Your task to perform on an android device: all mails in gmail Image 0: 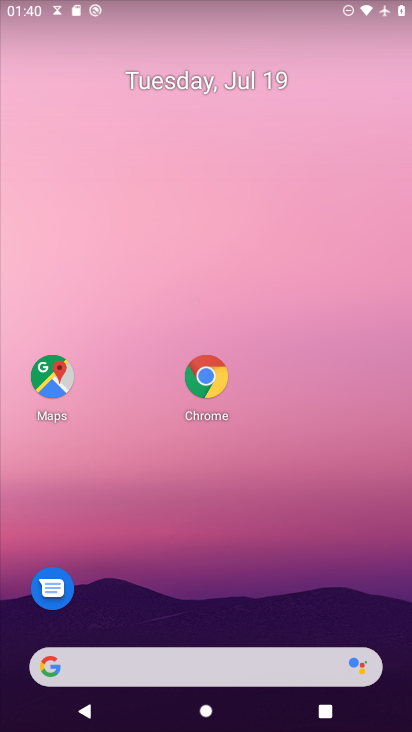
Step 0: press home button
Your task to perform on an android device: all mails in gmail Image 1: 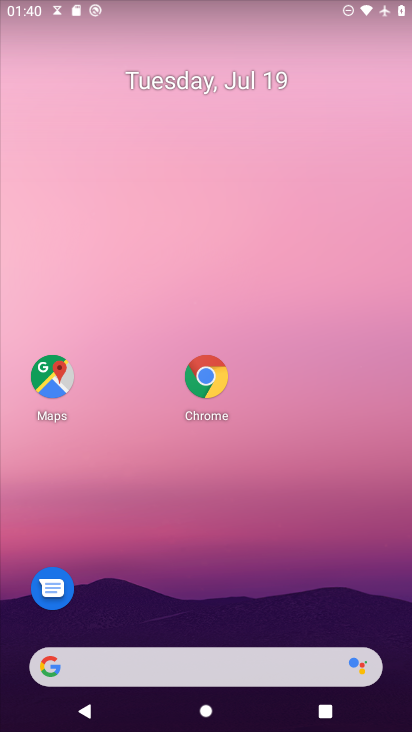
Step 1: drag from (205, 628) to (180, 85)
Your task to perform on an android device: all mails in gmail Image 2: 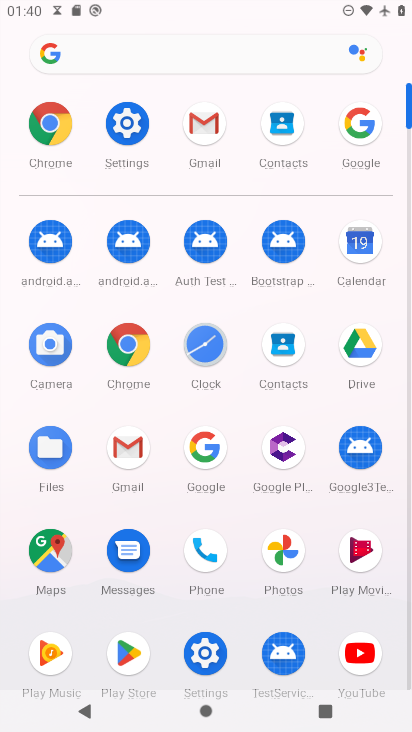
Step 2: click (202, 137)
Your task to perform on an android device: all mails in gmail Image 3: 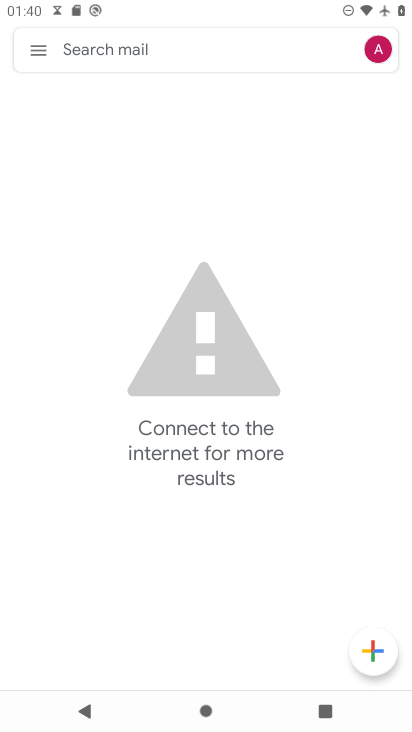
Step 3: click (37, 51)
Your task to perform on an android device: all mails in gmail Image 4: 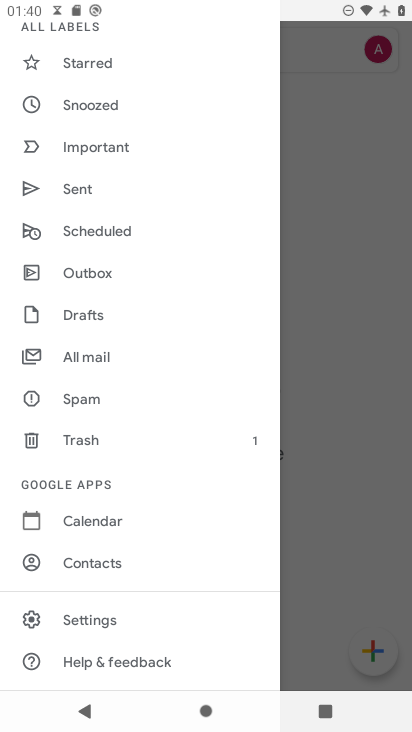
Step 4: click (85, 367)
Your task to perform on an android device: all mails in gmail Image 5: 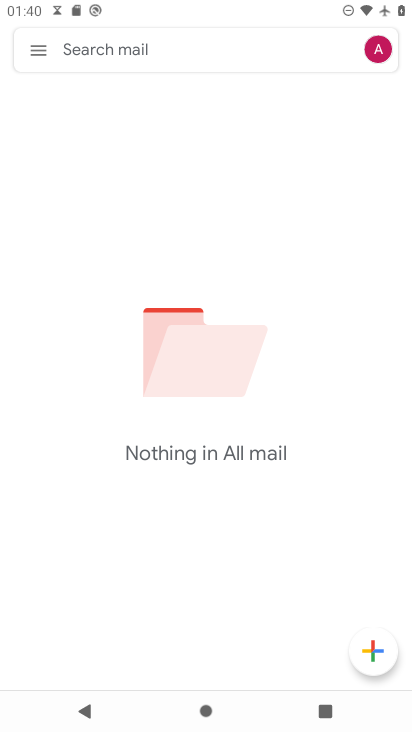
Step 5: task complete